Your task to perform on an android device: check android version Image 0: 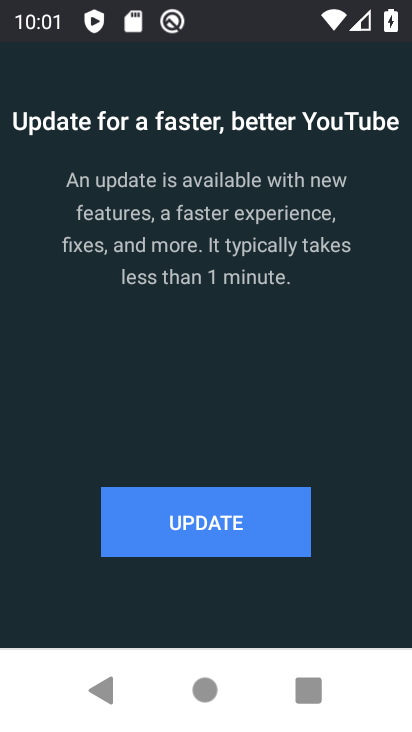
Step 0: press home button
Your task to perform on an android device: check android version Image 1: 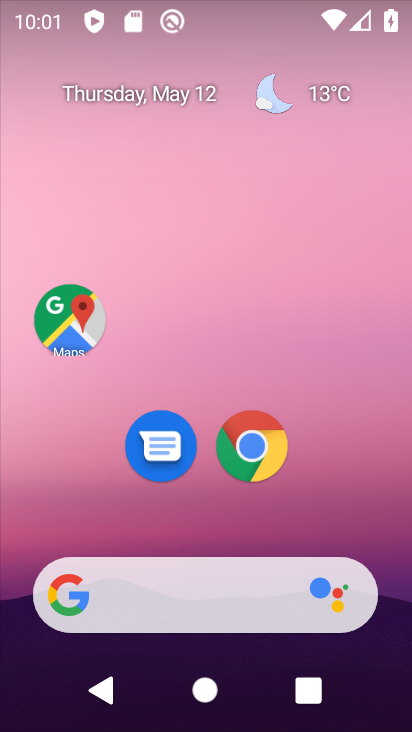
Step 1: drag from (397, 306) to (363, 0)
Your task to perform on an android device: check android version Image 2: 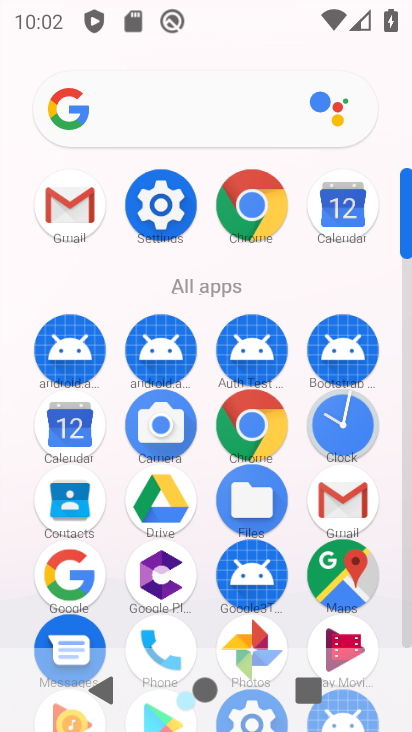
Step 2: click (171, 186)
Your task to perform on an android device: check android version Image 3: 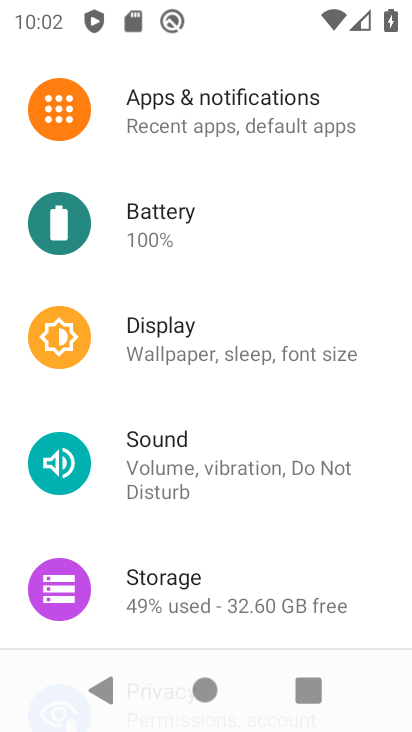
Step 3: drag from (199, 624) to (291, 186)
Your task to perform on an android device: check android version Image 4: 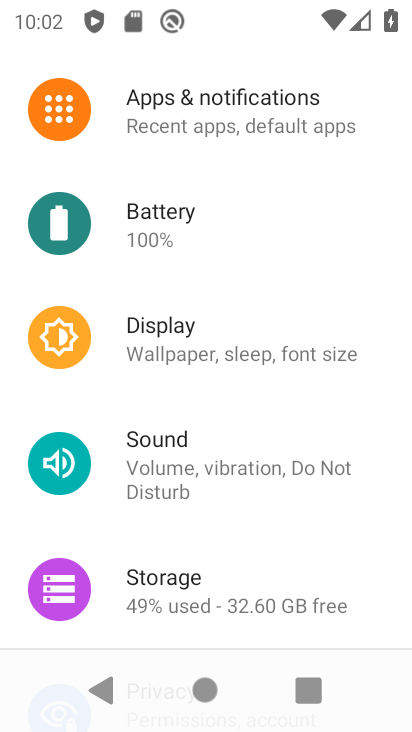
Step 4: drag from (253, 618) to (339, 230)
Your task to perform on an android device: check android version Image 5: 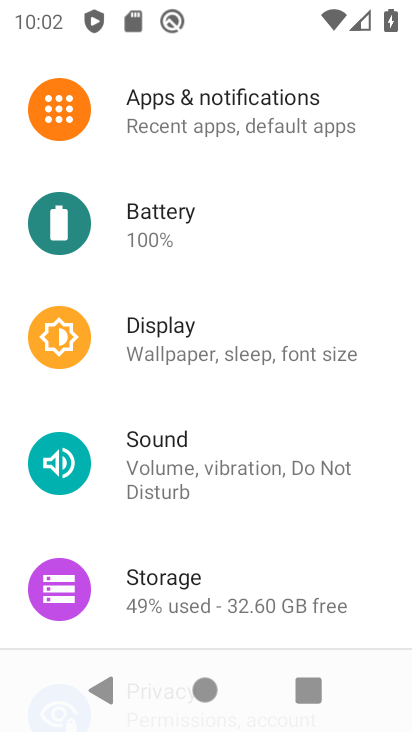
Step 5: drag from (253, 621) to (341, 139)
Your task to perform on an android device: check android version Image 6: 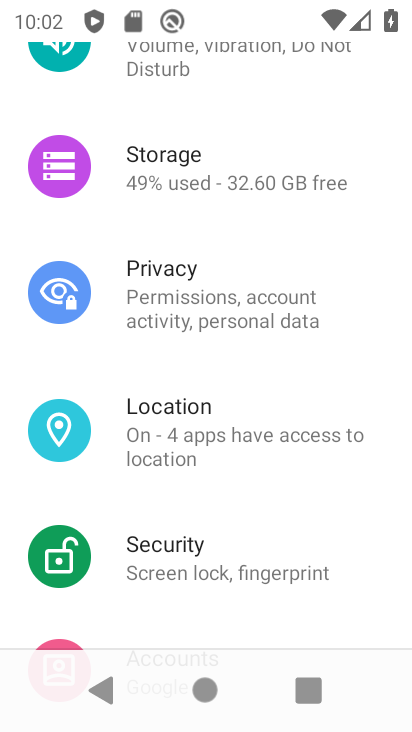
Step 6: drag from (232, 616) to (292, 220)
Your task to perform on an android device: check android version Image 7: 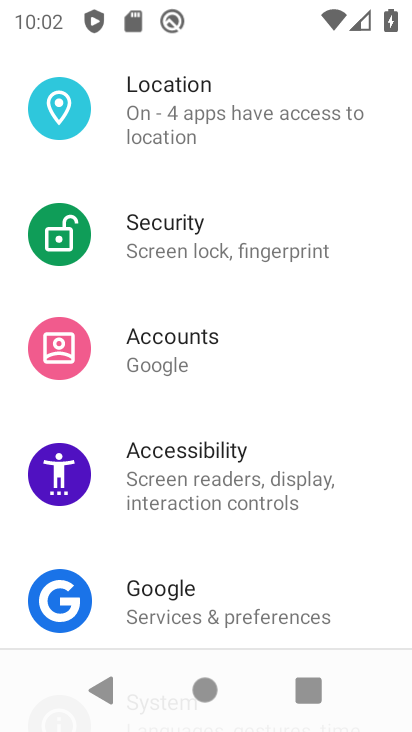
Step 7: drag from (215, 605) to (307, 270)
Your task to perform on an android device: check android version Image 8: 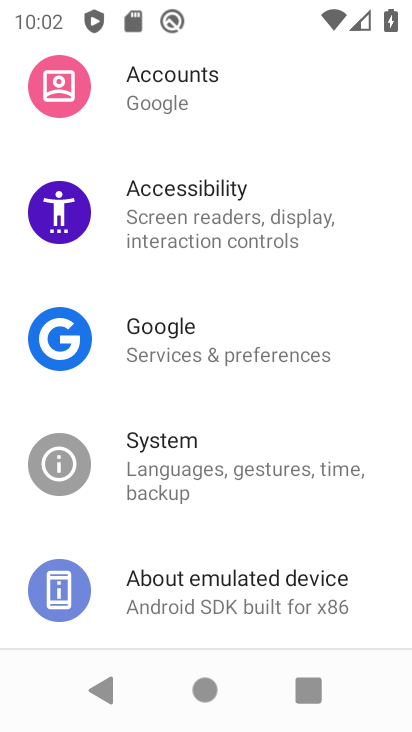
Step 8: click (259, 576)
Your task to perform on an android device: check android version Image 9: 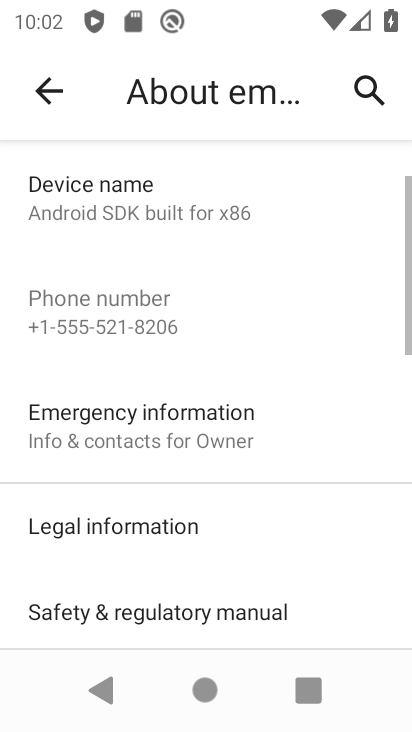
Step 9: drag from (261, 574) to (317, 231)
Your task to perform on an android device: check android version Image 10: 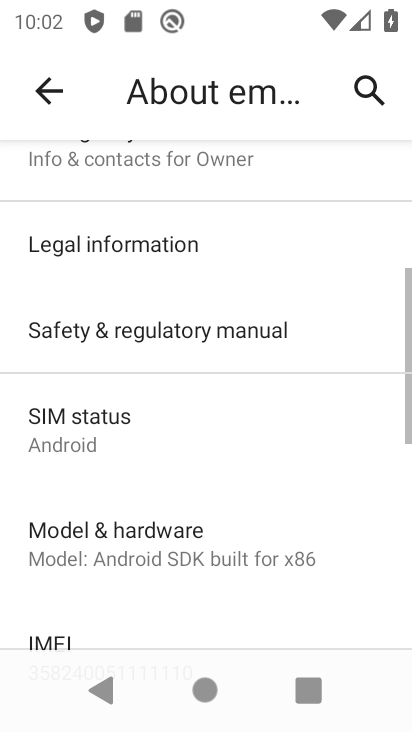
Step 10: drag from (156, 594) to (272, 140)
Your task to perform on an android device: check android version Image 11: 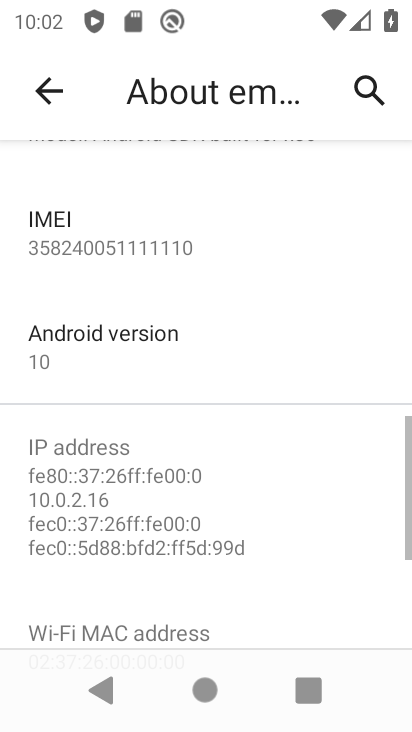
Step 11: click (218, 355)
Your task to perform on an android device: check android version Image 12: 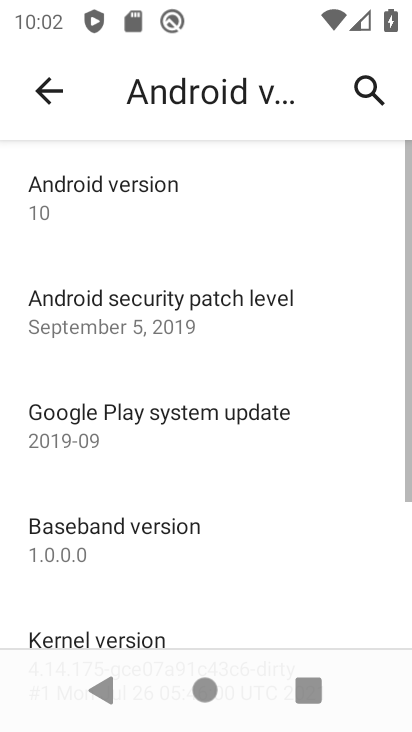
Step 12: task complete